Your task to perform on an android device: Open Youtube and go to "Your channel" Image 0: 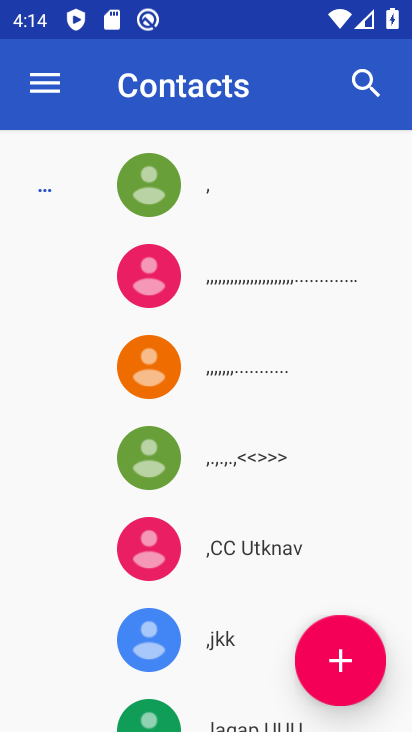
Step 0: press back button
Your task to perform on an android device: Open Youtube and go to "Your channel" Image 1: 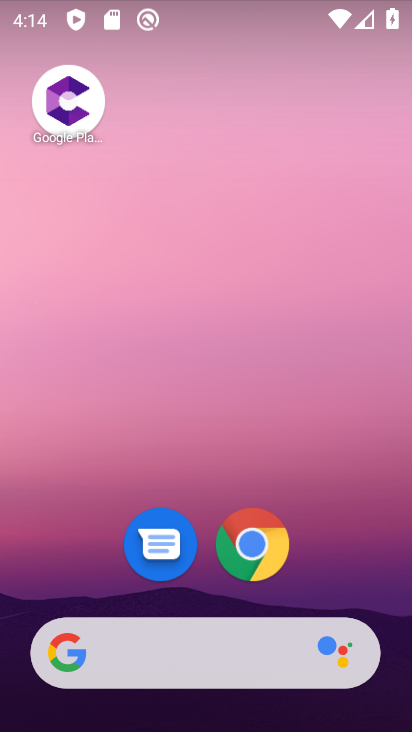
Step 1: drag from (208, 576) to (208, 215)
Your task to perform on an android device: Open Youtube and go to "Your channel" Image 2: 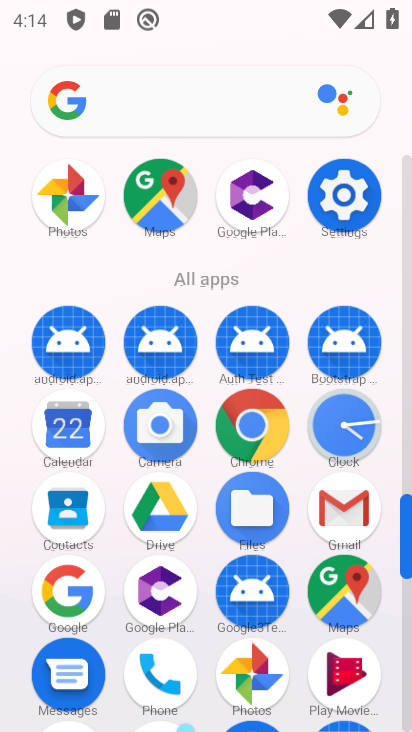
Step 2: click (410, 682)
Your task to perform on an android device: Open Youtube and go to "Your channel" Image 3: 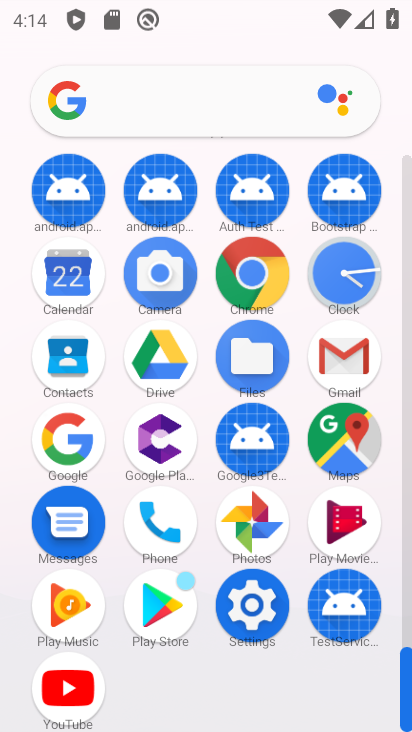
Step 3: click (92, 697)
Your task to perform on an android device: Open Youtube and go to "Your channel" Image 4: 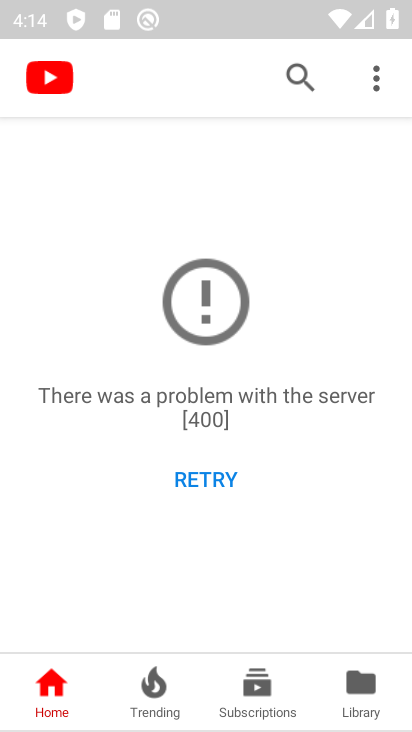
Step 4: click (378, 72)
Your task to perform on an android device: Open Youtube and go to "Your channel" Image 5: 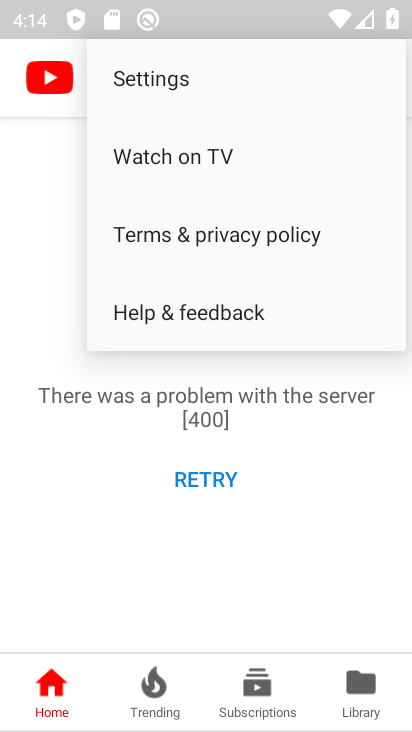
Step 5: click (152, 81)
Your task to perform on an android device: Open Youtube and go to "Your channel" Image 6: 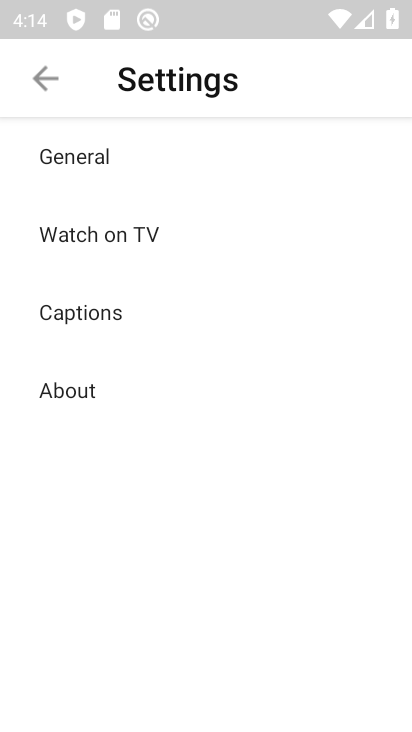
Step 6: click (32, 89)
Your task to perform on an android device: Open Youtube and go to "Your channel" Image 7: 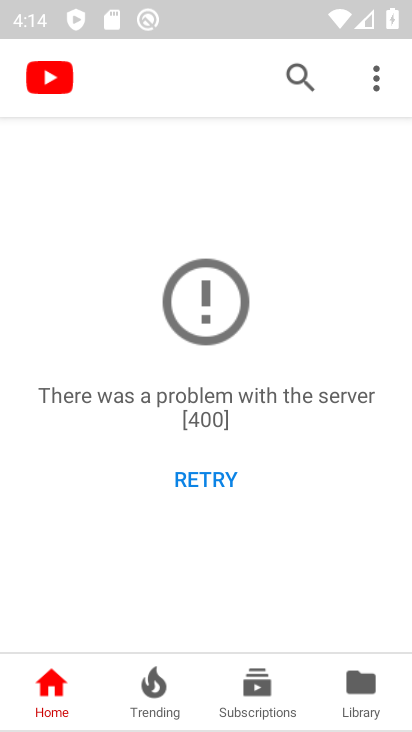
Step 7: click (63, 79)
Your task to perform on an android device: Open Youtube and go to "Your channel" Image 8: 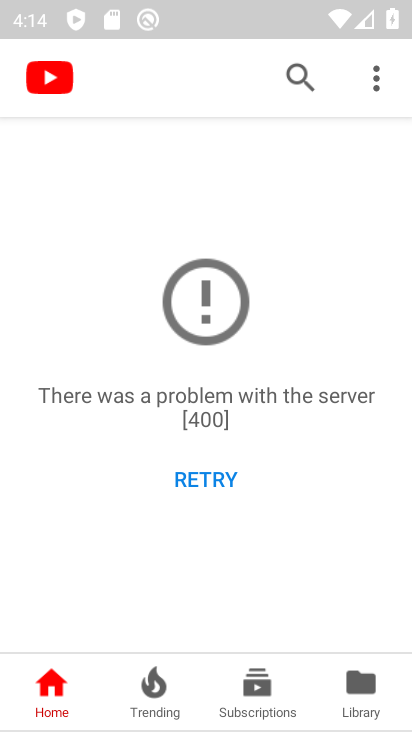
Step 8: task complete